Your task to perform on an android device: Go to ESPN.com Image 0: 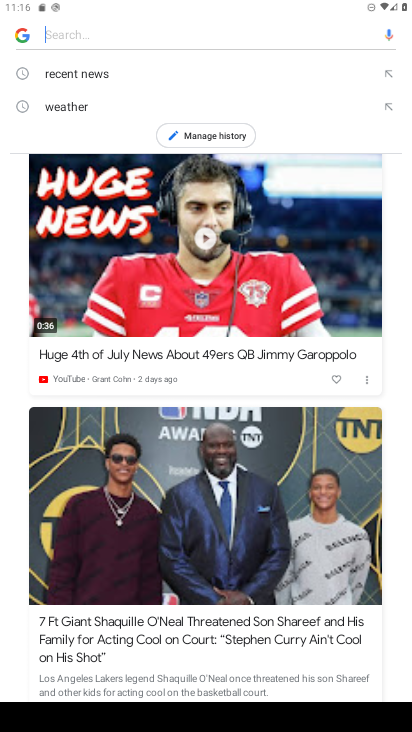
Step 0: press back button
Your task to perform on an android device: Go to ESPN.com Image 1: 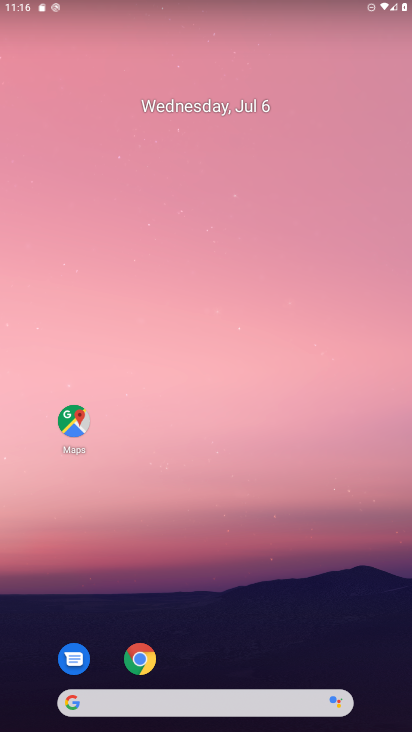
Step 1: click (146, 653)
Your task to perform on an android device: Go to ESPN.com Image 2: 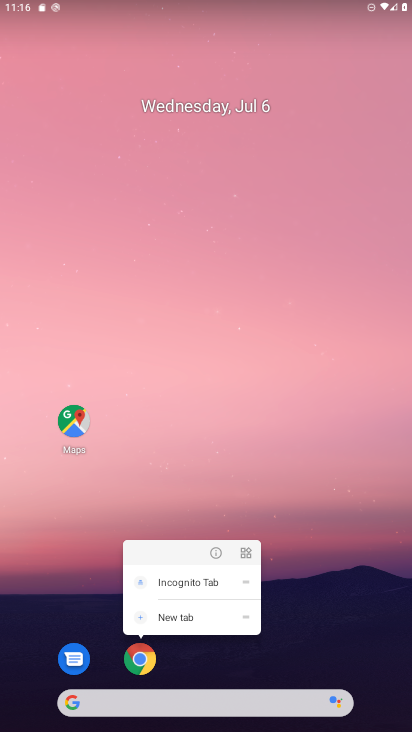
Step 2: click (144, 654)
Your task to perform on an android device: Go to ESPN.com Image 3: 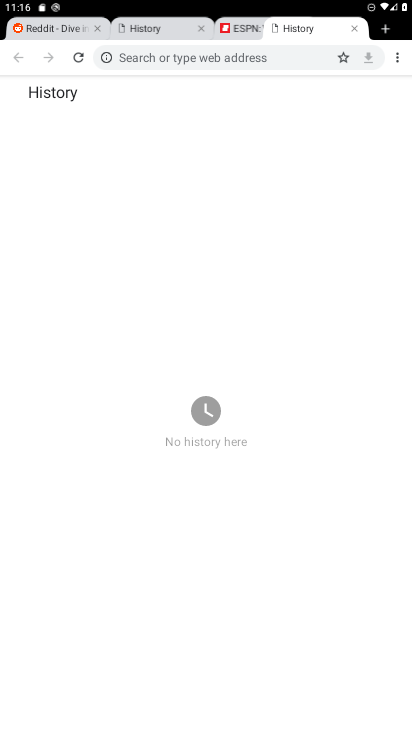
Step 3: click (229, 25)
Your task to perform on an android device: Go to ESPN.com Image 4: 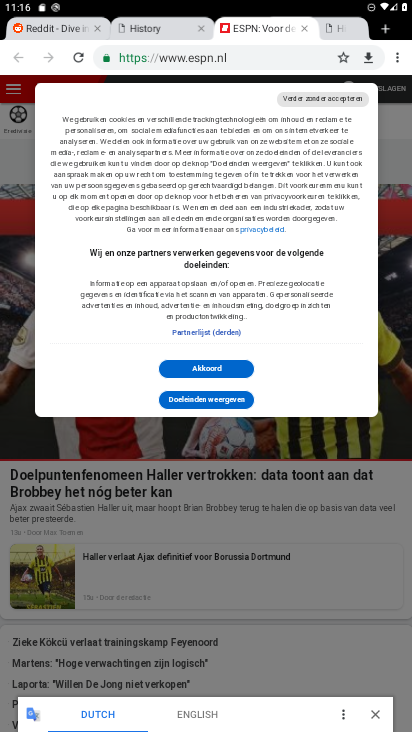
Step 4: task complete